Your task to perform on an android device: Go to network settings Image 0: 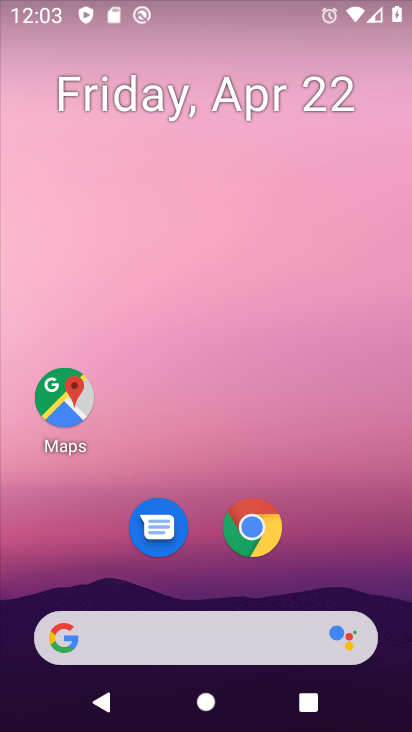
Step 0: drag from (196, 562) to (236, 165)
Your task to perform on an android device: Go to network settings Image 1: 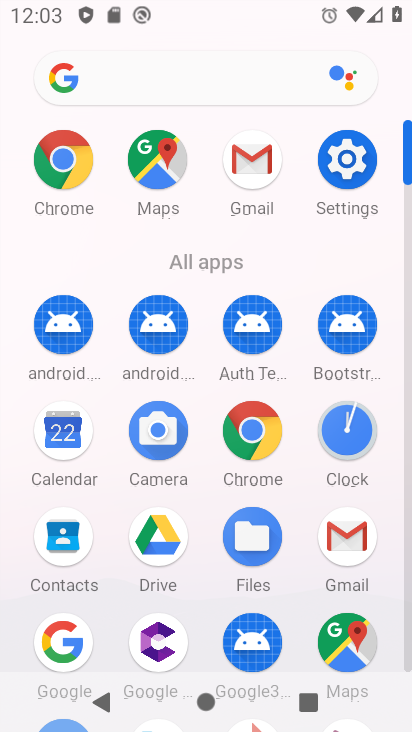
Step 1: click (340, 150)
Your task to perform on an android device: Go to network settings Image 2: 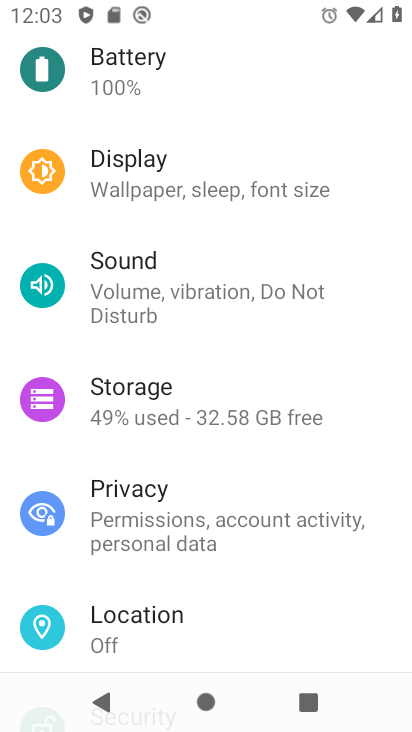
Step 2: drag from (224, 135) to (224, 583)
Your task to perform on an android device: Go to network settings Image 3: 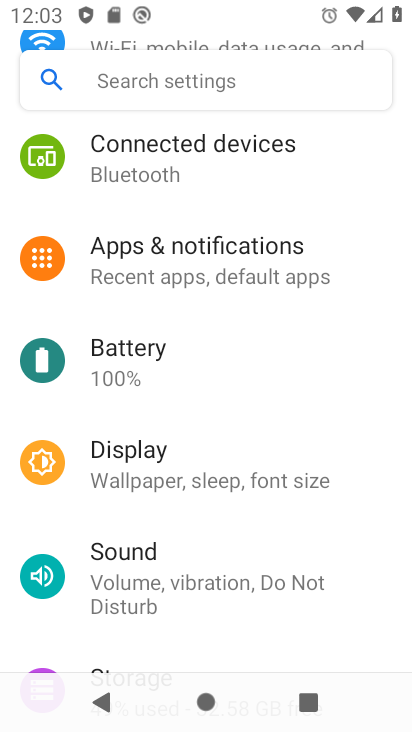
Step 3: drag from (202, 180) to (204, 501)
Your task to perform on an android device: Go to network settings Image 4: 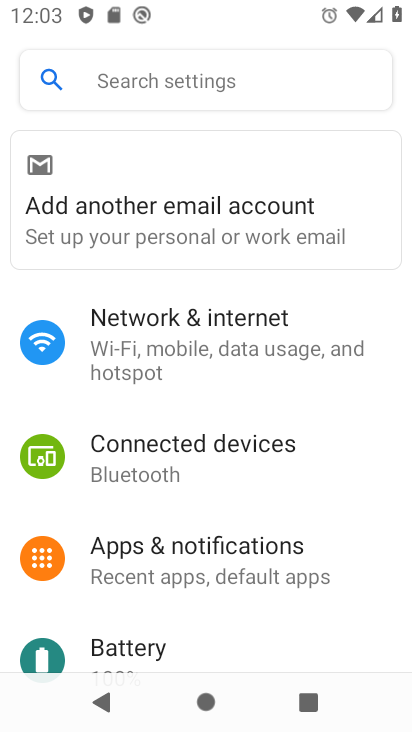
Step 4: click (211, 320)
Your task to perform on an android device: Go to network settings Image 5: 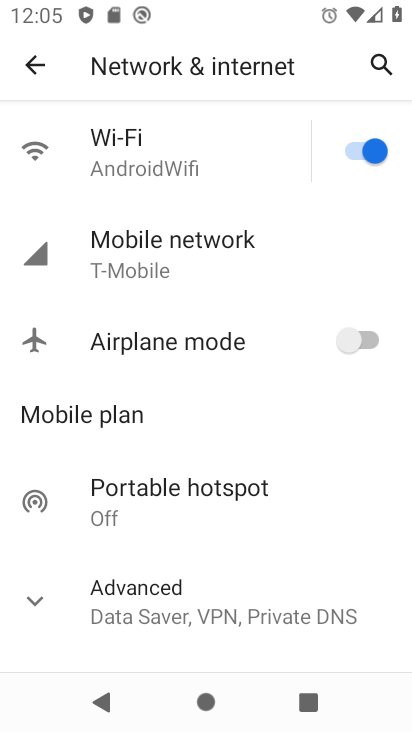
Step 5: task complete